Your task to perform on an android device: move an email to a new category in the gmail app Image 0: 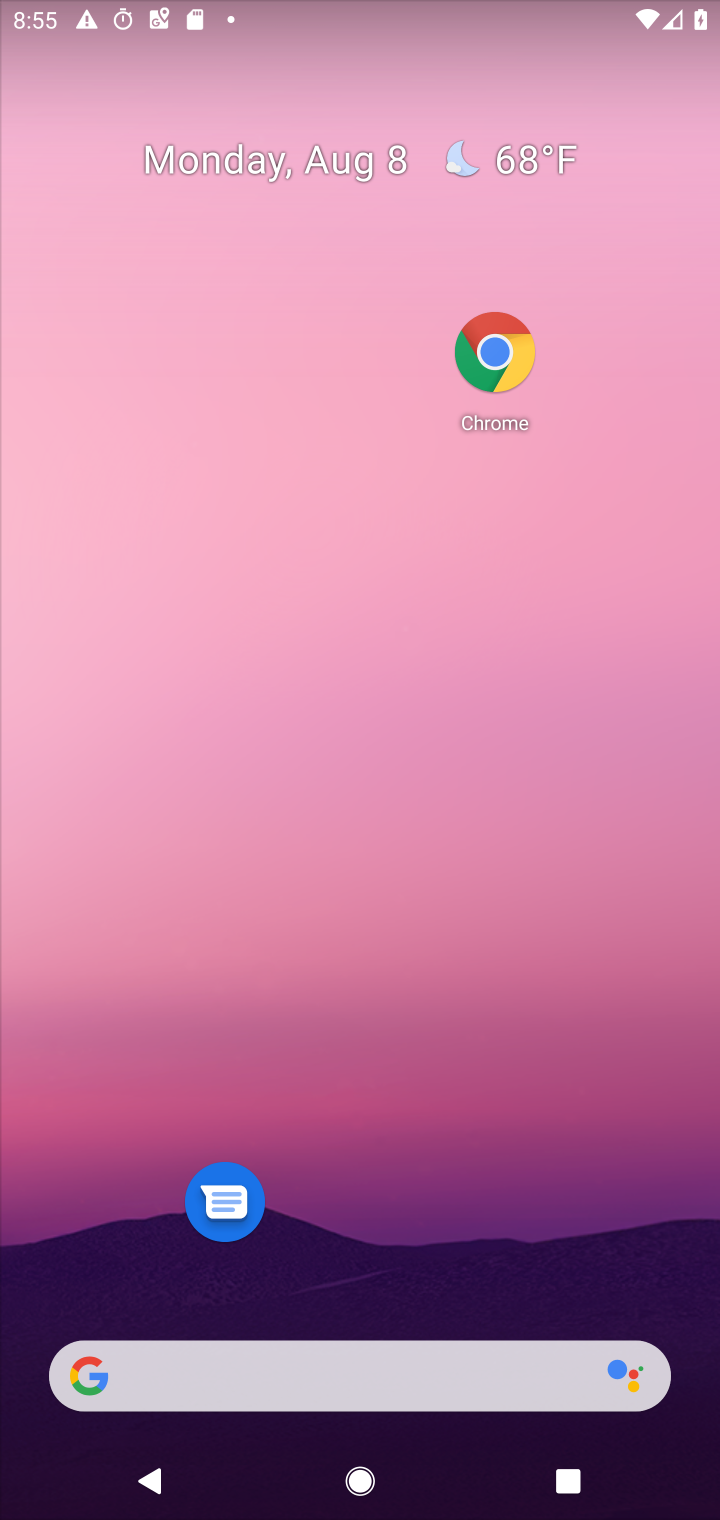
Step 0: drag from (588, 877) to (711, 200)
Your task to perform on an android device: move an email to a new category in the gmail app Image 1: 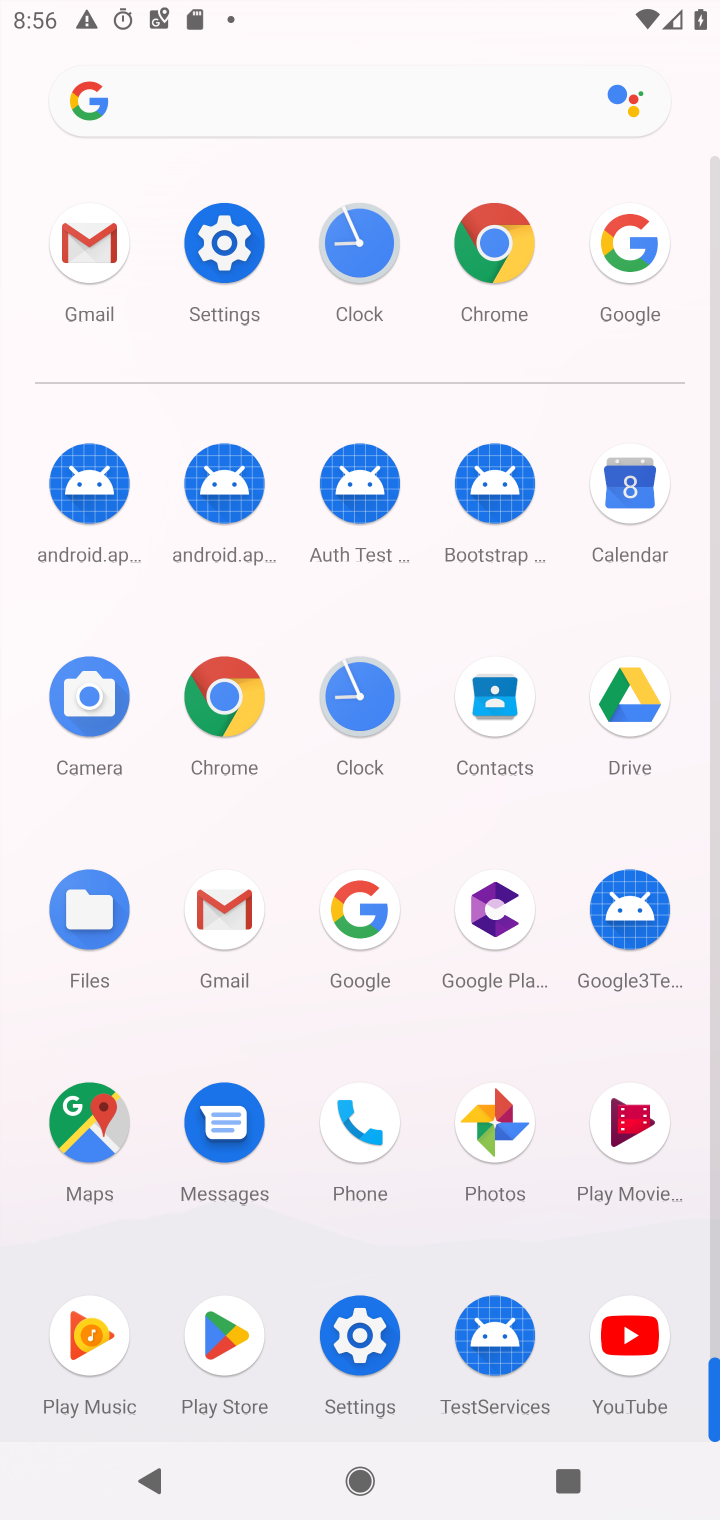
Step 1: click (225, 925)
Your task to perform on an android device: move an email to a new category in the gmail app Image 2: 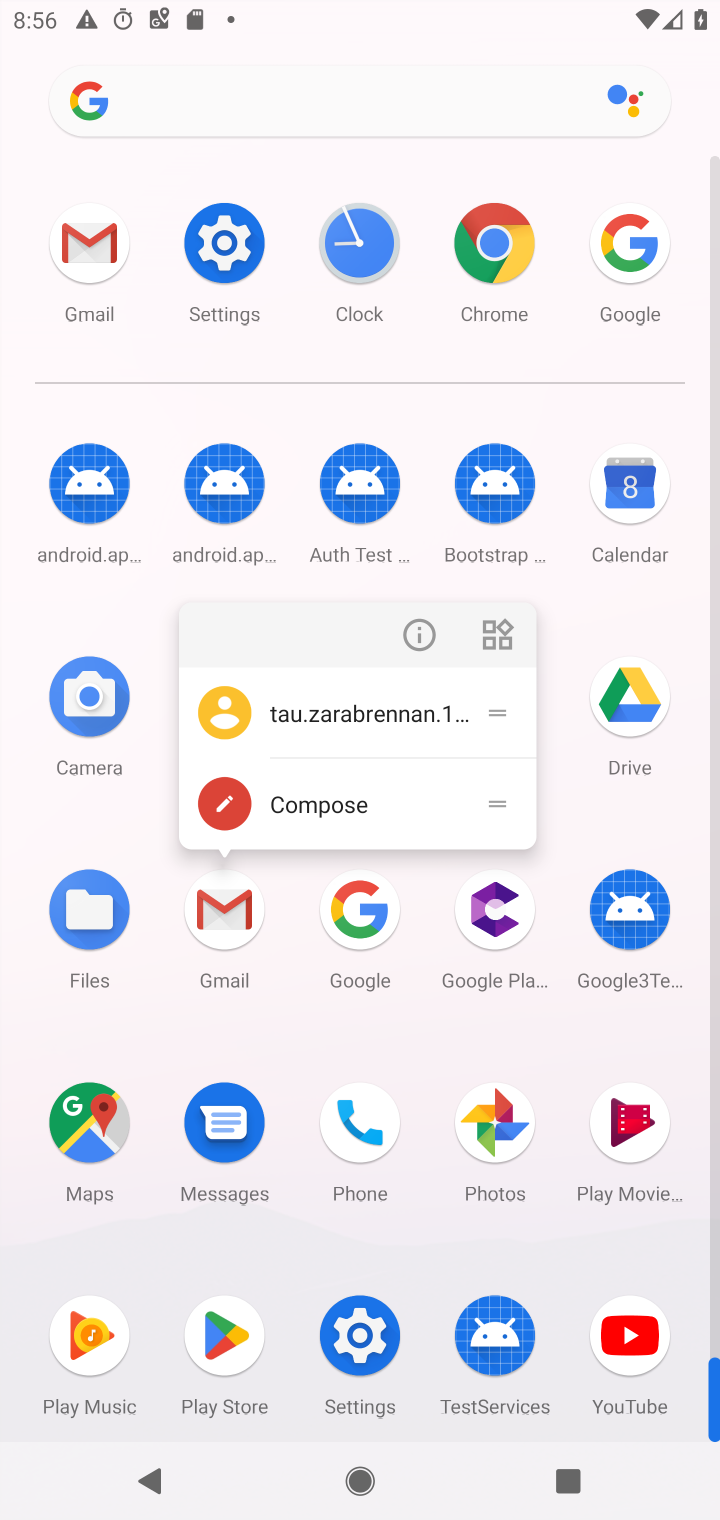
Step 2: click (223, 944)
Your task to perform on an android device: move an email to a new category in the gmail app Image 3: 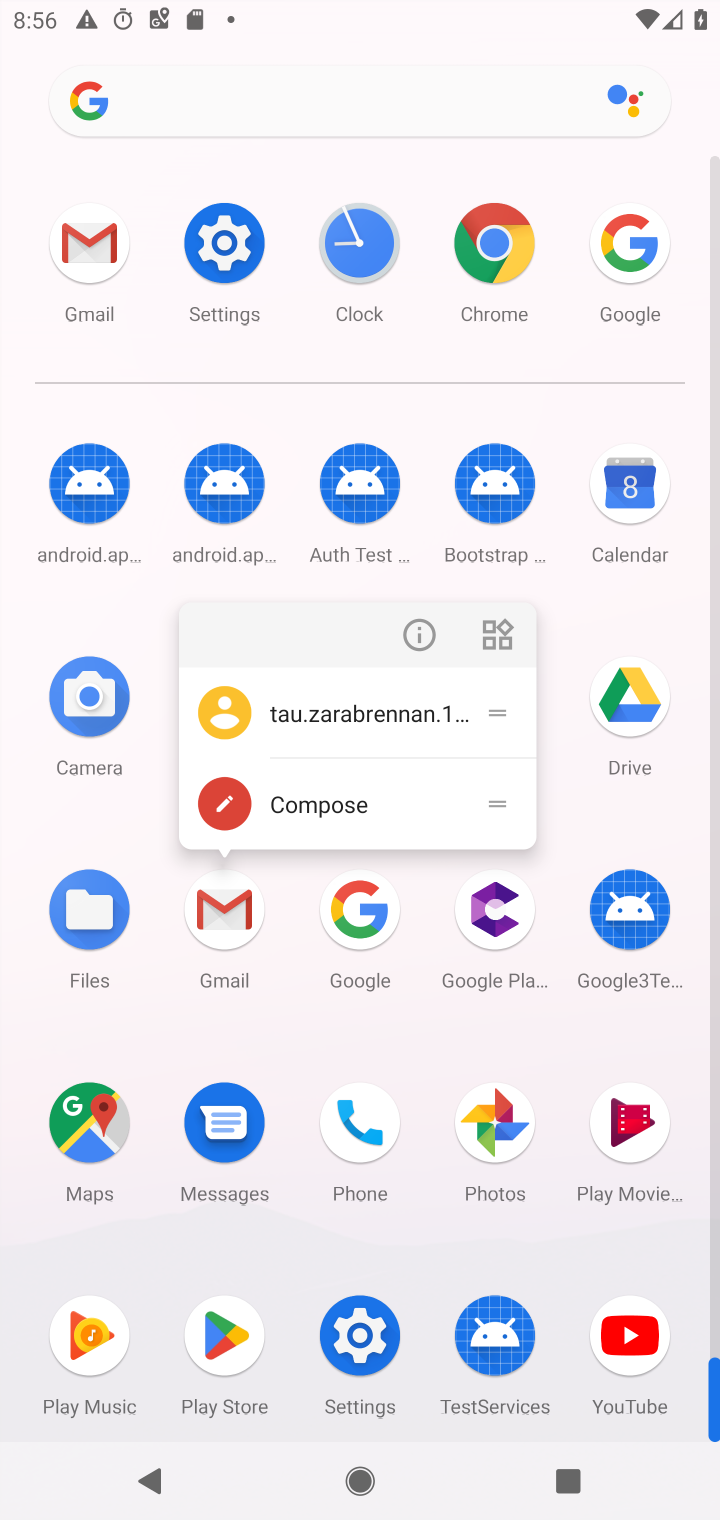
Step 3: click (223, 944)
Your task to perform on an android device: move an email to a new category in the gmail app Image 4: 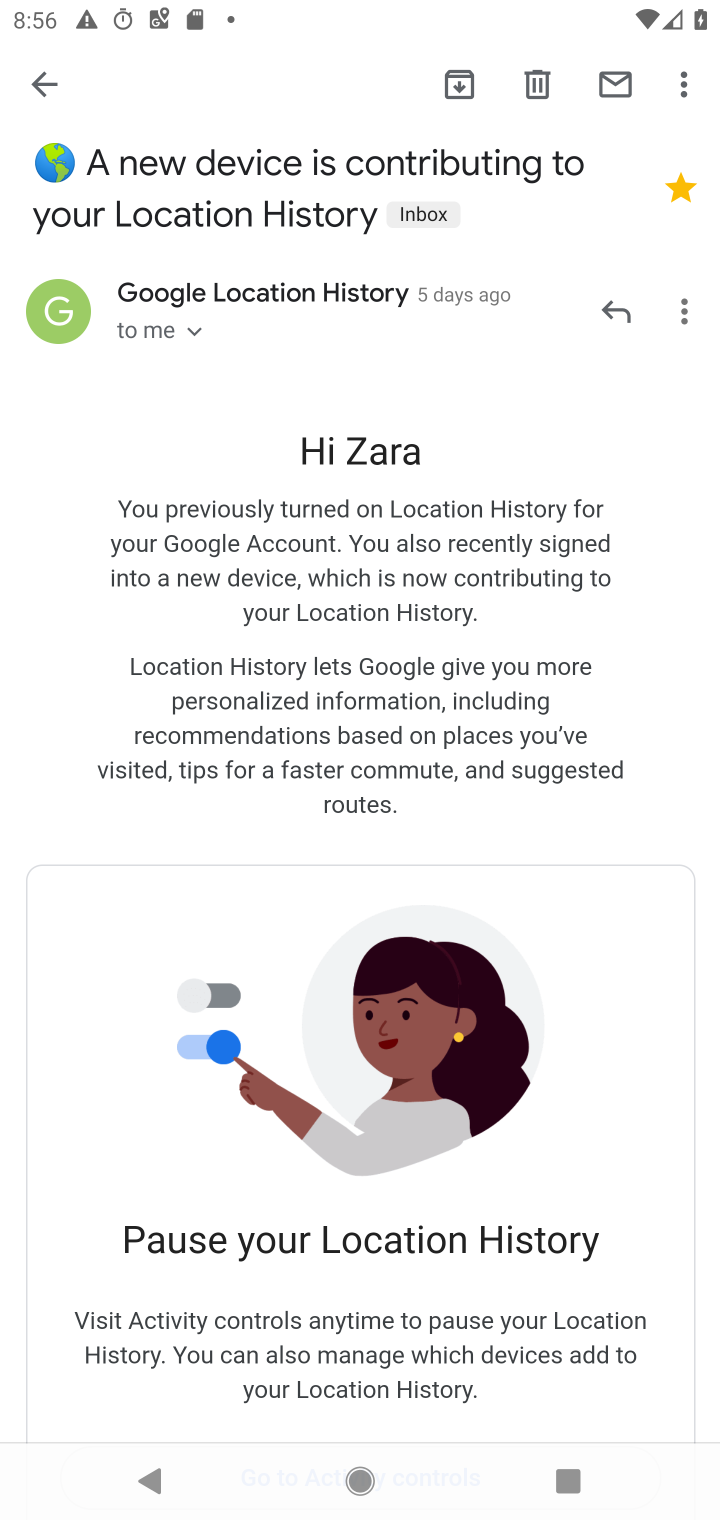
Step 4: click (35, 81)
Your task to perform on an android device: move an email to a new category in the gmail app Image 5: 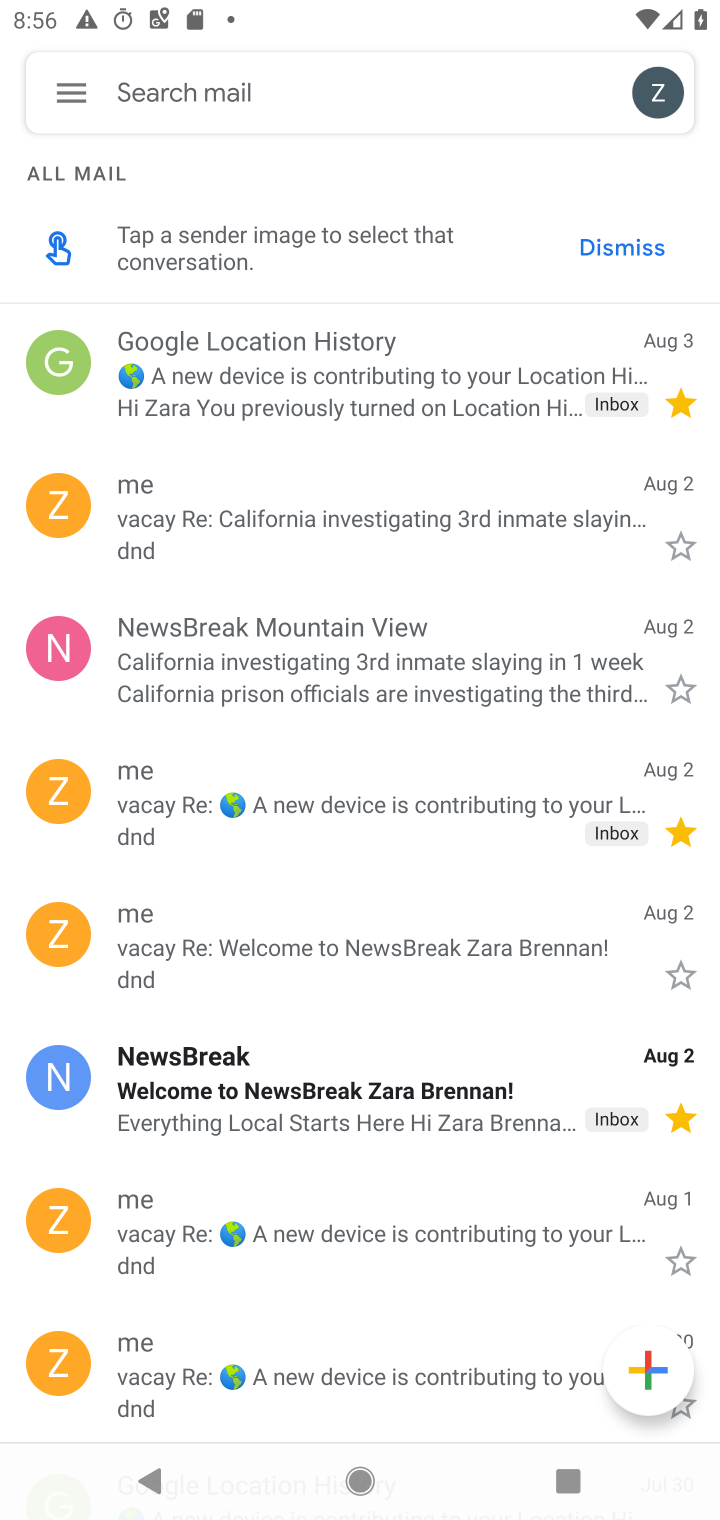
Step 5: click (239, 1081)
Your task to perform on an android device: move an email to a new category in the gmail app Image 6: 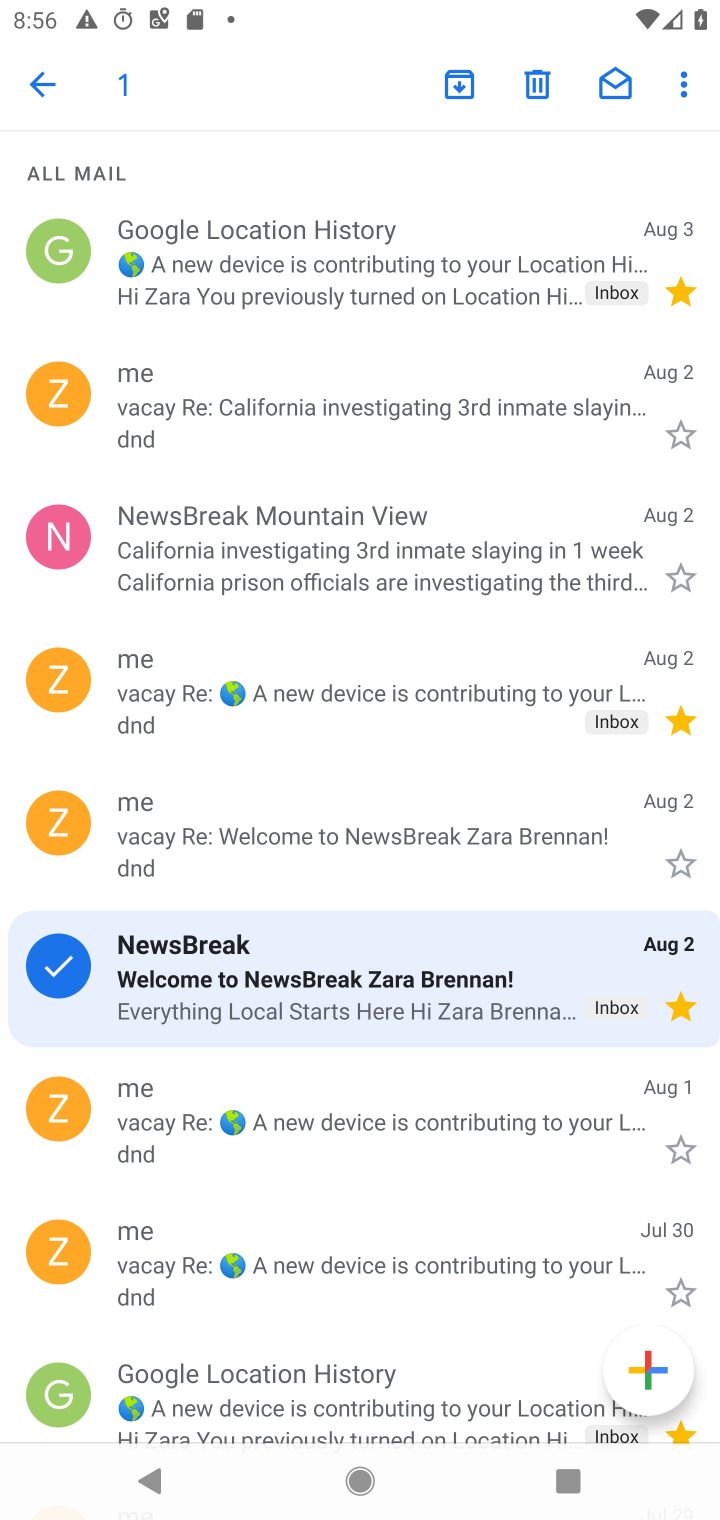
Step 6: click (273, 980)
Your task to perform on an android device: move an email to a new category in the gmail app Image 7: 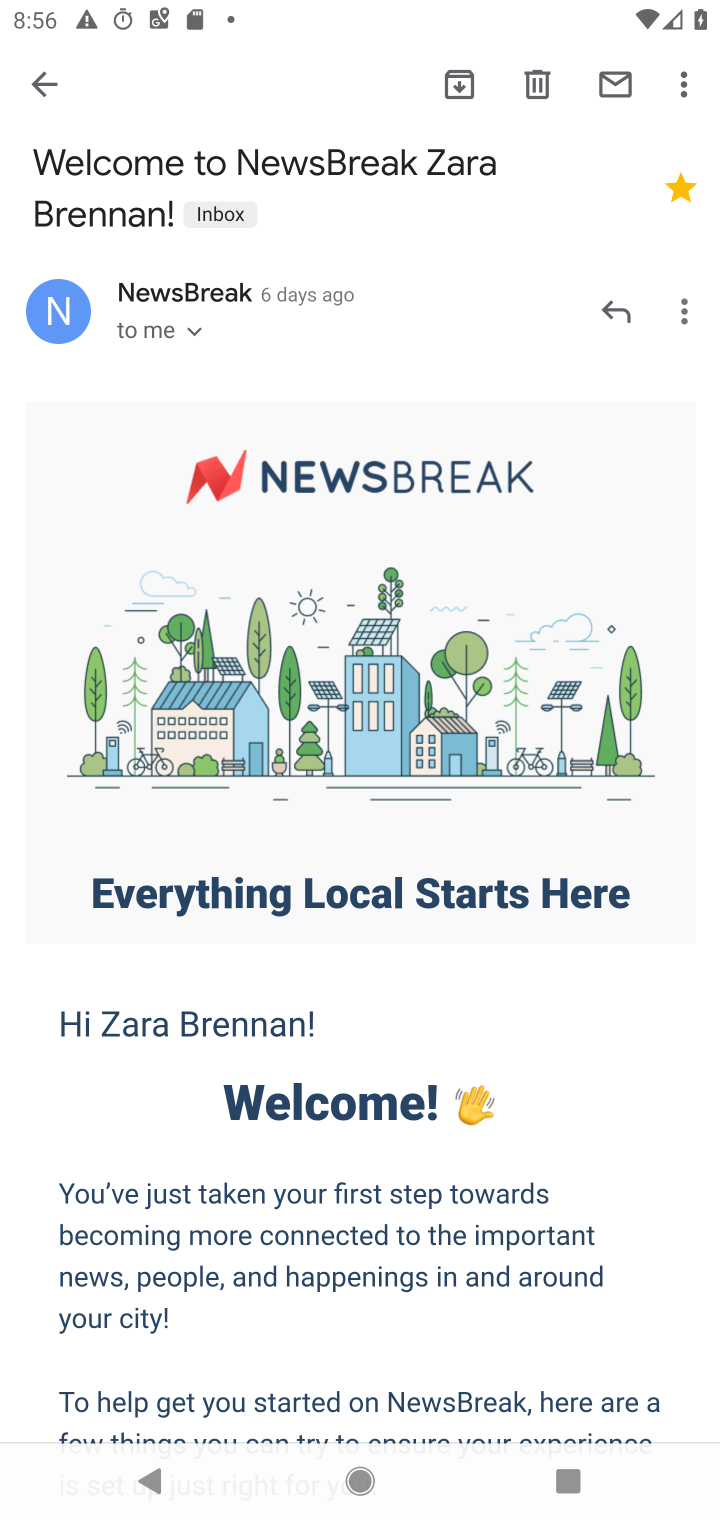
Step 7: click (679, 88)
Your task to perform on an android device: move an email to a new category in the gmail app Image 8: 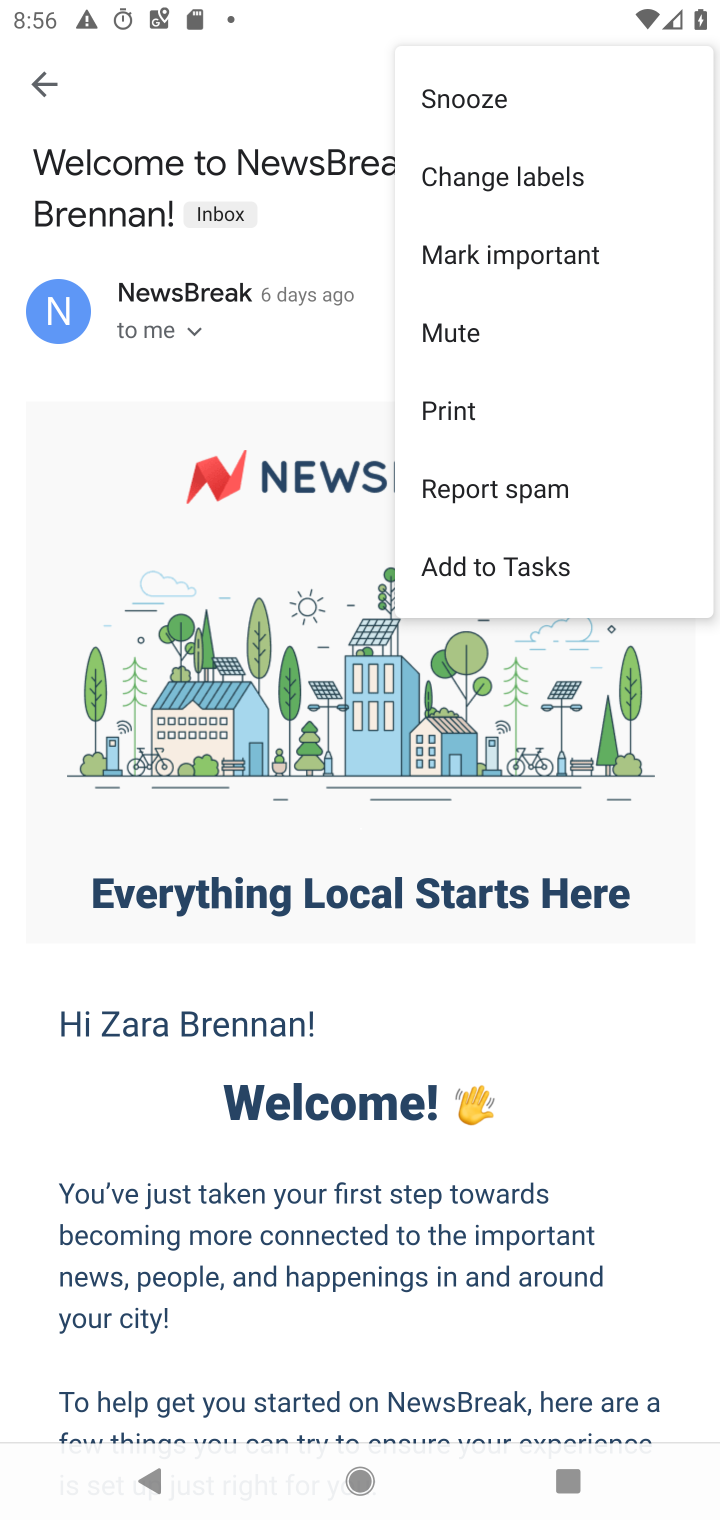
Step 8: click (524, 171)
Your task to perform on an android device: move an email to a new category in the gmail app Image 9: 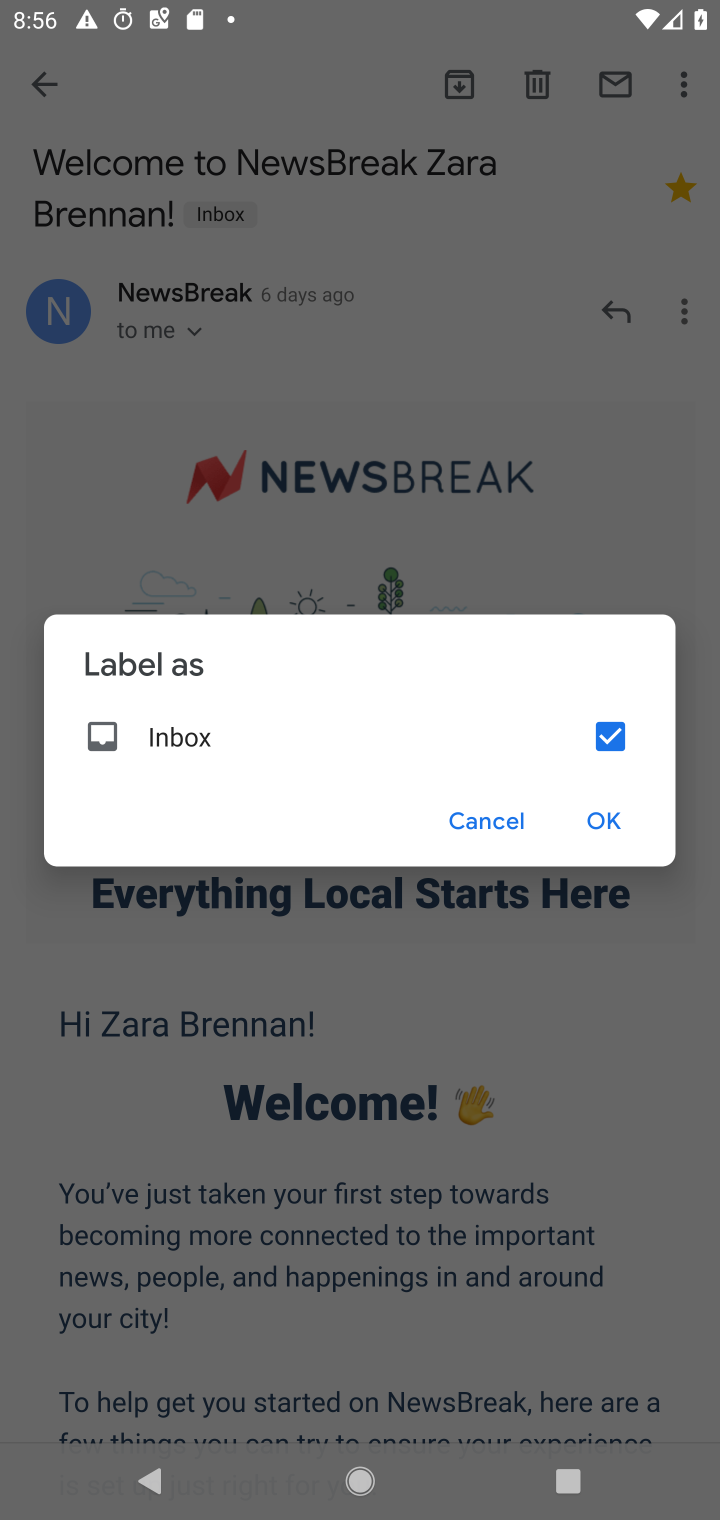
Step 9: click (583, 816)
Your task to perform on an android device: move an email to a new category in the gmail app Image 10: 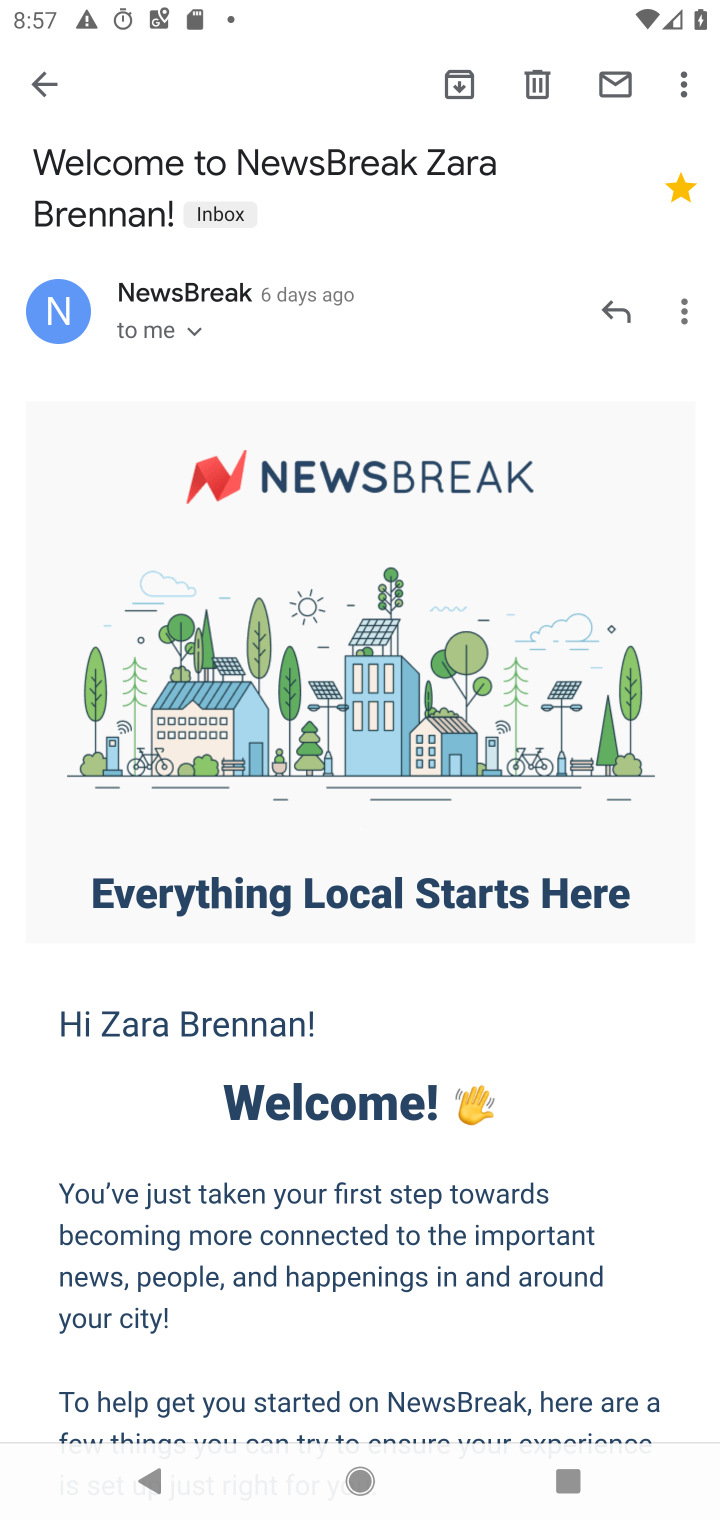
Step 10: task complete